Your task to perform on an android device: Add razer blackwidow to the cart on amazon.com, then select checkout. Image 0: 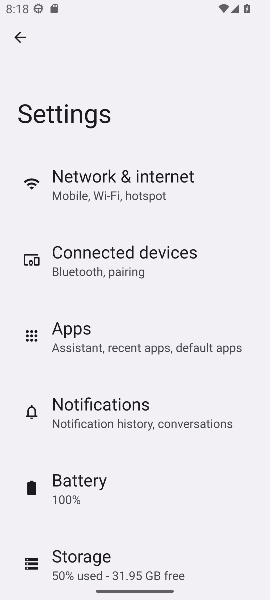
Step 0: press home button
Your task to perform on an android device: Add razer blackwidow to the cart on amazon.com, then select checkout. Image 1: 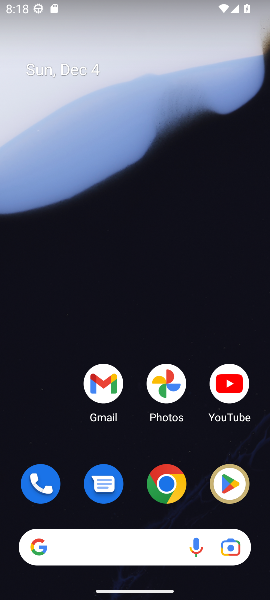
Step 1: click (167, 497)
Your task to perform on an android device: Add razer blackwidow to the cart on amazon.com, then select checkout. Image 2: 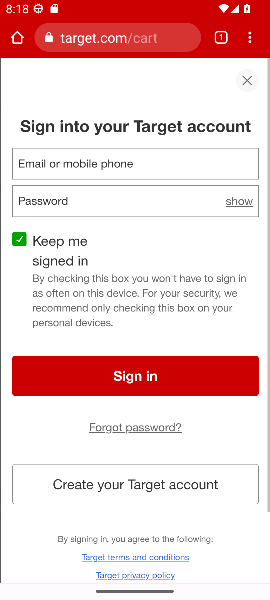
Step 2: click (122, 39)
Your task to perform on an android device: Add razer blackwidow to the cart on amazon.com, then select checkout. Image 3: 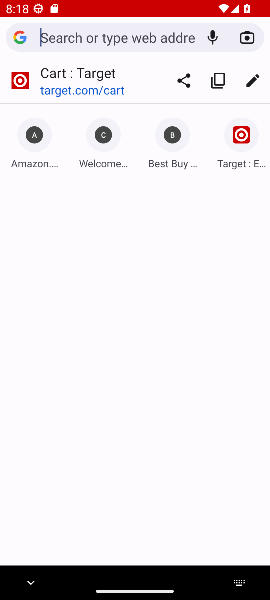
Step 3: click (31, 152)
Your task to perform on an android device: Add razer blackwidow to the cart on amazon.com, then select checkout. Image 4: 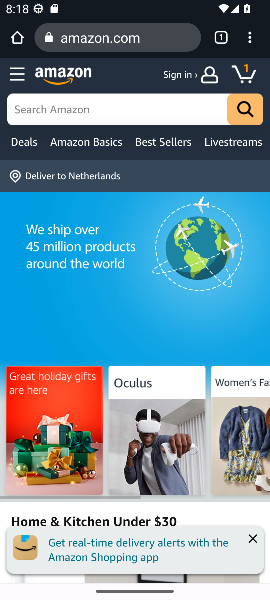
Step 4: click (68, 109)
Your task to perform on an android device: Add razer blackwidow to the cart on amazon.com, then select checkout. Image 5: 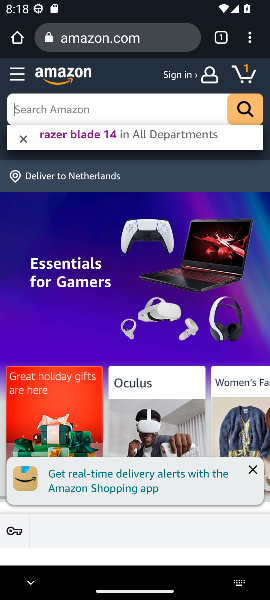
Step 5: type "razer blackwidow"
Your task to perform on an android device: Add razer blackwidow to the cart on amazon.com, then select checkout. Image 6: 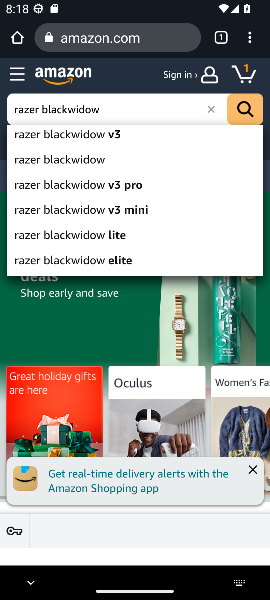
Step 6: click (69, 156)
Your task to perform on an android device: Add razer blackwidow to the cart on amazon.com, then select checkout. Image 7: 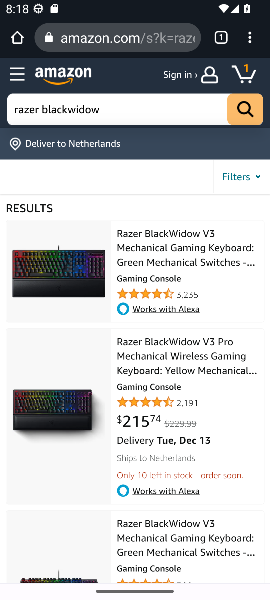
Step 7: click (164, 378)
Your task to perform on an android device: Add razer blackwidow to the cart on amazon.com, then select checkout. Image 8: 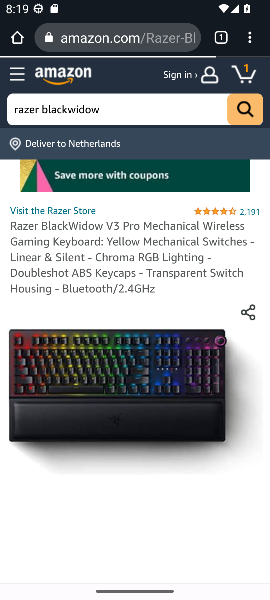
Step 8: drag from (177, 464) to (176, 213)
Your task to perform on an android device: Add razer blackwidow to the cart on amazon.com, then select checkout. Image 9: 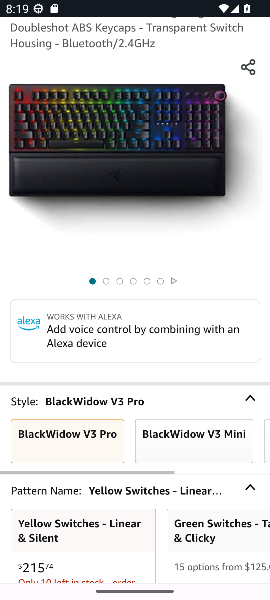
Step 9: drag from (173, 434) to (163, 184)
Your task to perform on an android device: Add razer blackwidow to the cart on amazon.com, then select checkout. Image 10: 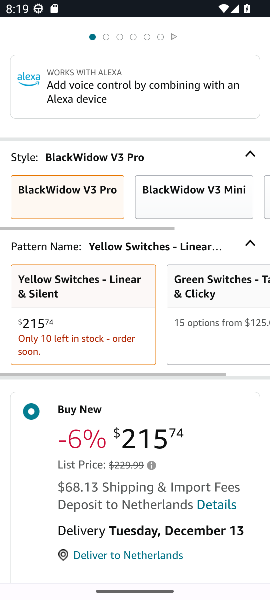
Step 10: drag from (175, 408) to (160, 137)
Your task to perform on an android device: Add razer blackwidow to the cart on amazon.com, then select checkout. Image 11: 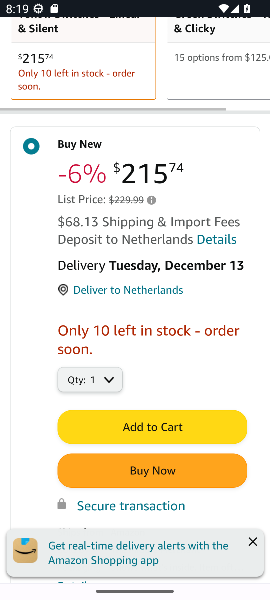
Step 11: click (129, 421)
Your task to perform on an android device: Add razer blackwidow to the cart on amazon.com, then select checkout. Image 12: 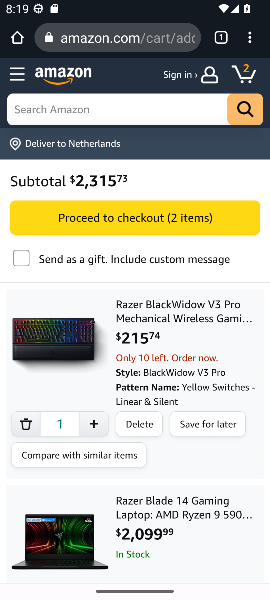
Step 12: click (135, 218)
Your task to perform on an android device: Add razer blackwidow to the cart on amazon.com, then select checkout. Image 13: 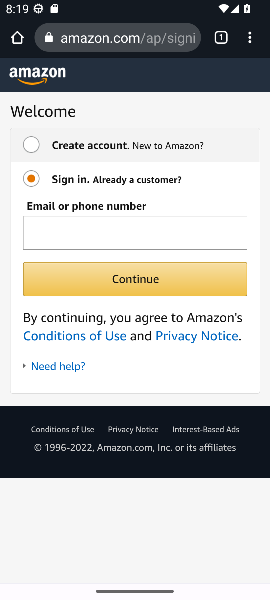
Step 13: task complete